Your task to perform on an android device: Search for energizer triple a on bestbuy, select the first entry, and add it to the cart. Image 0: 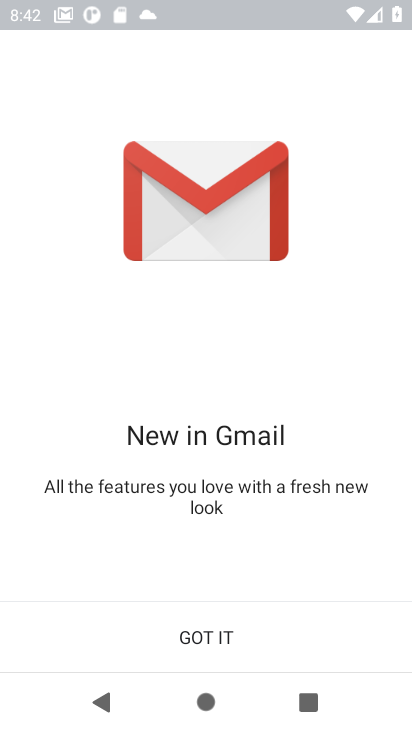
Step 0: press home button
Your task to perform on an android device: Search for energizer triple a on bestbuy, select the first entry, and add it to the cart. Image 1: 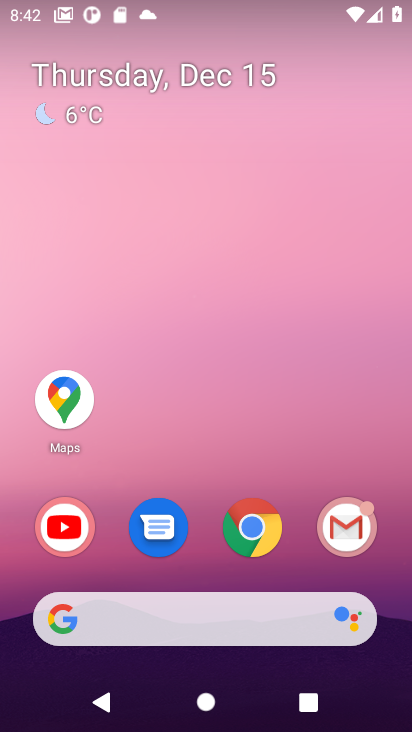
Step 1: click (244, 541)
Your task to perform on an android device: Search for energizer triple a on bestbuy, select the first entry, and add it to the cart. Image 2: 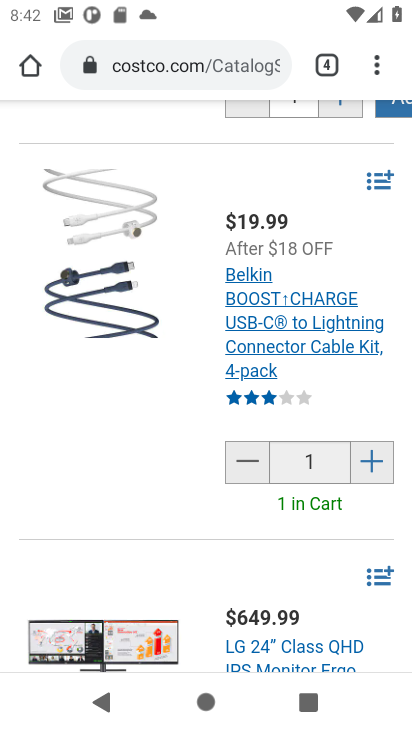
Step 2: press home button
Your task to perform on an android device: Search for energizer triple a on bestbuy, select the first entry, and add it to the cart. Image 3: 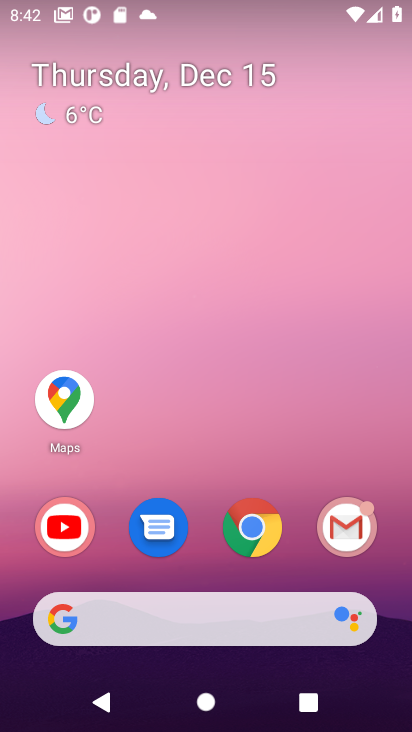
Step 3: click (254, 526)
Your task to perform on an android device: Search for energizer triple a on bestbuy, select the first entry, and add it to the cart. Image 4: 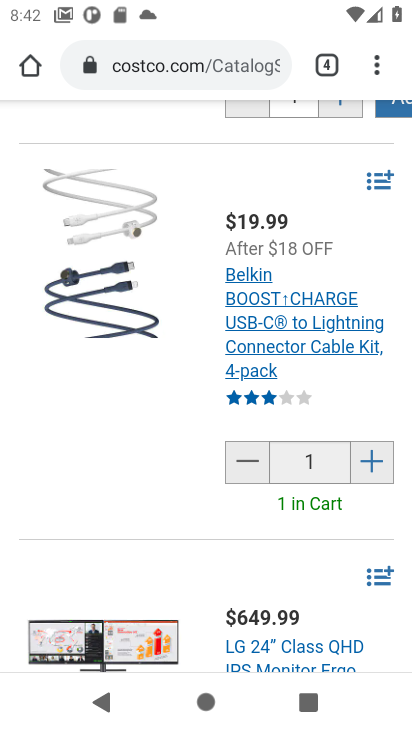
Step 4: click (194, 58)
Your task to perform on an android device: Search for energizer triple a on bestbuy, select the first entry, and add it to the cart. Image 5: 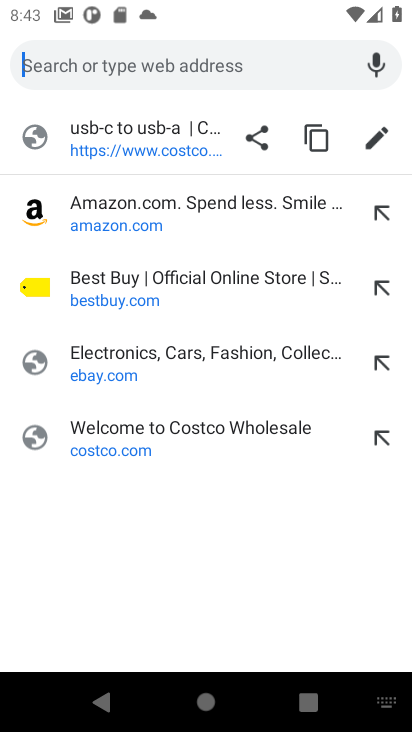
Step 5: click (266, 293)
Your task to perform on an android device: Search for energizer triple a on bestbuy, select the first entry, and add it to the cart. Image 6: 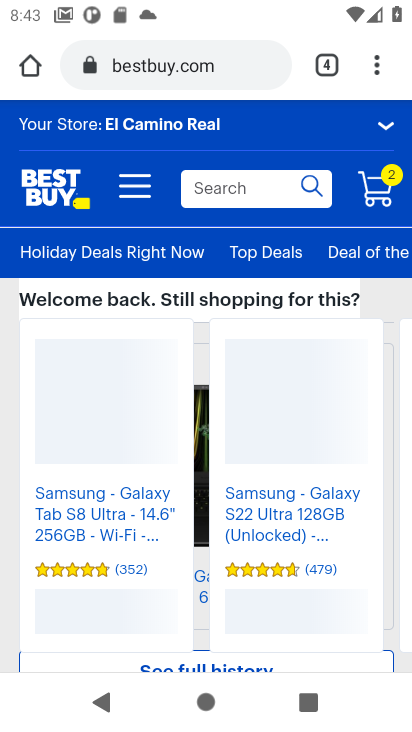
Step 6: click (202, 190)
Your task to perform on an android device: Search for energizer triple a on bestbuy, select the first entry, and add it to the cart. Image 7: 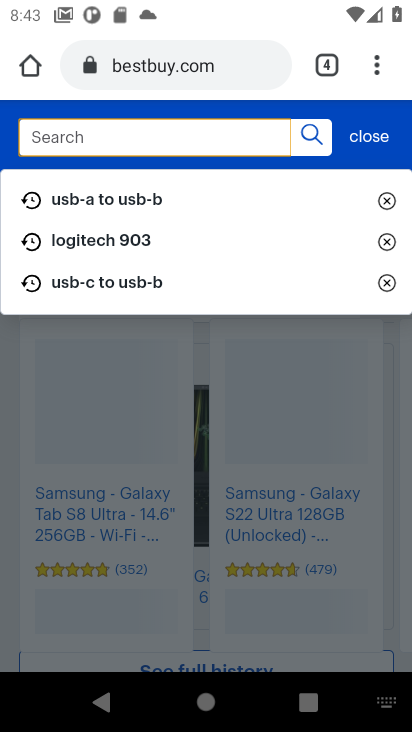
Step 7: type "energizer triple a"
Your task to perform on an android device: Search for energizer triple a on bestbuy, select the first entry, and add it to the cart. Image 8: 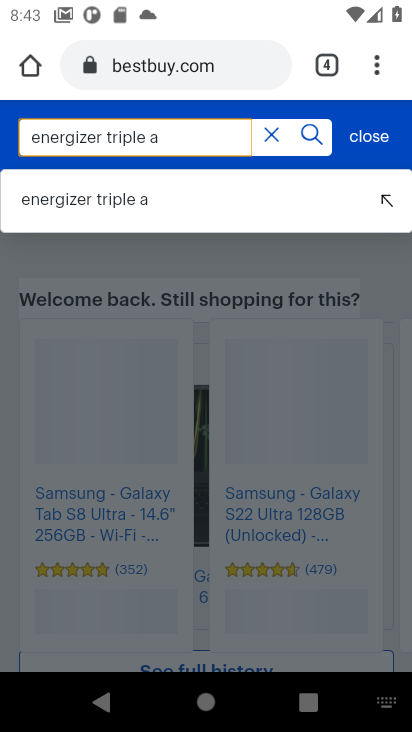
Step 8: click (308, 142)
Your task to perform on an android device: Search for energizer triple a on bestbuy, select the first entry, and add it to the cart. Image 9: 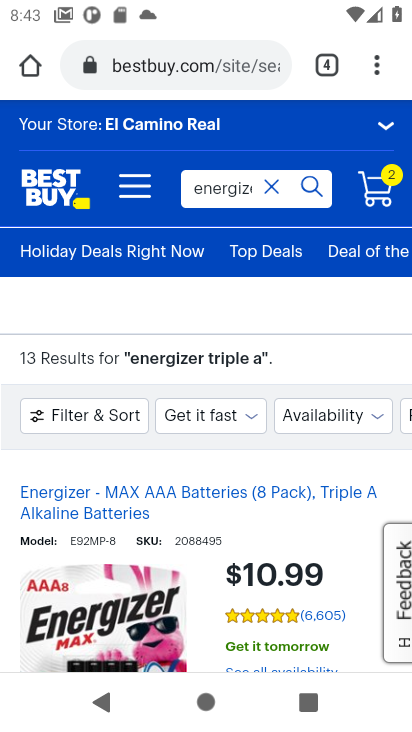
Step 9: click (321, 192)
Your task to perform on an android device: Search for energizer triple a on bestbuy, select the first entry, and add it to the cart. Image 10: 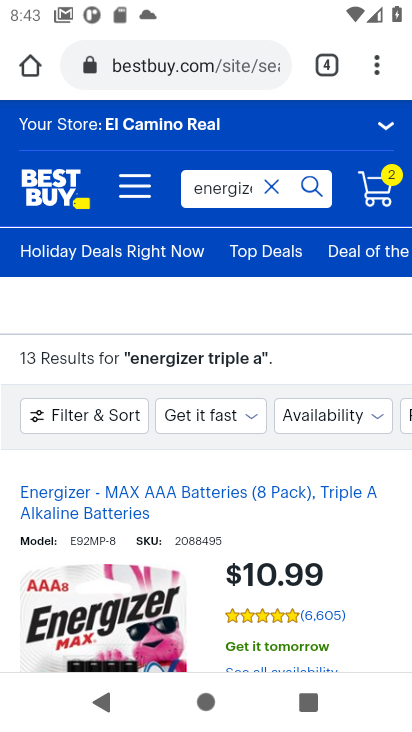
Step 10: drag from (309, 653) to (293, 498)
Your task to perform on an android device: Search for energizer triple a on bestbuy, select the first entry, and add it to the cart. Image 11: 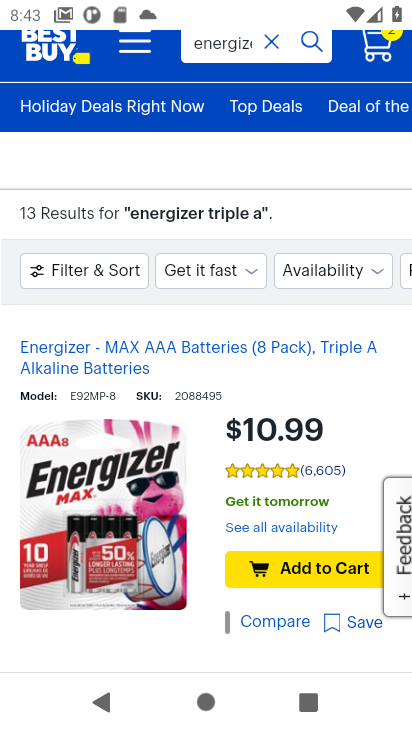
Step 11: click (264, 563)
Your task to perform on an android device: Search for energizer triple a on bestbuy, select the first entry, and add it to the cart. Image 12: 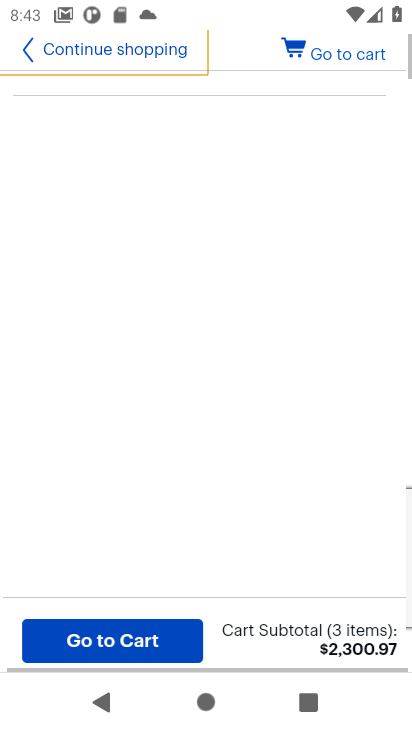
Step 12: task complete